Your task to perform on an android device: all mails in gmail Image 0: 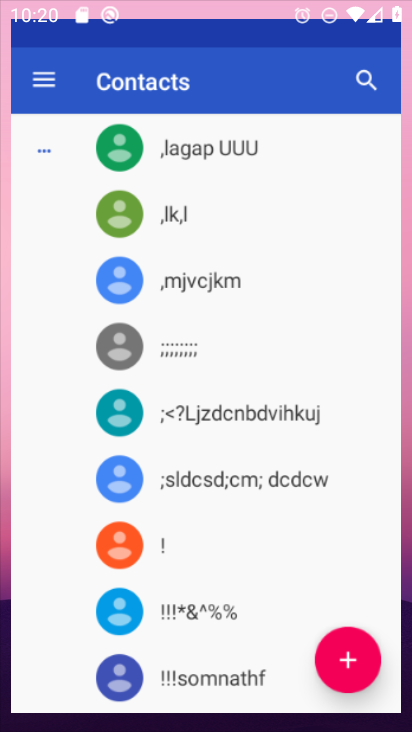
Step 0: press home button
Your task to perform on an android device: all mails in gmail Image 1: 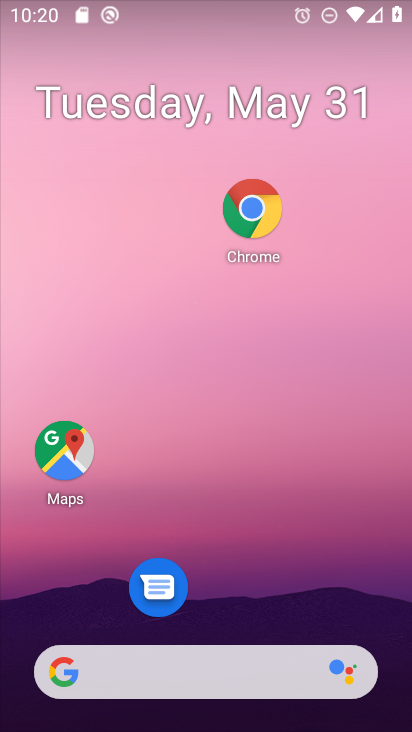
Step 1: drag from (206, 622) to (205, 88)
Your task to perform on an android device: all mails in gmail Image 2: 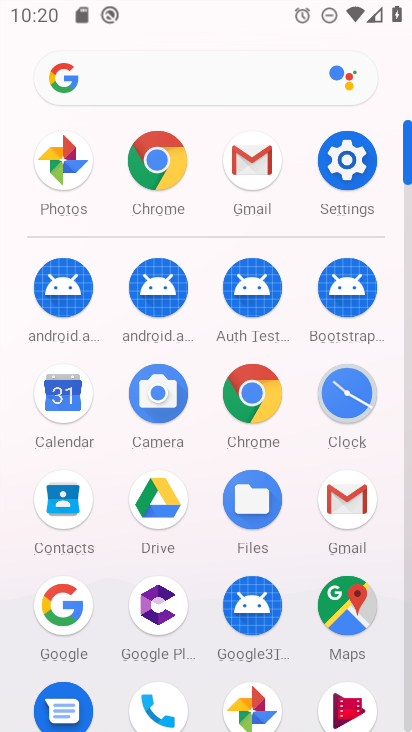
Step 2: click (247, 159)
Your task to perform on an android device: all mails in gmail Image 3: 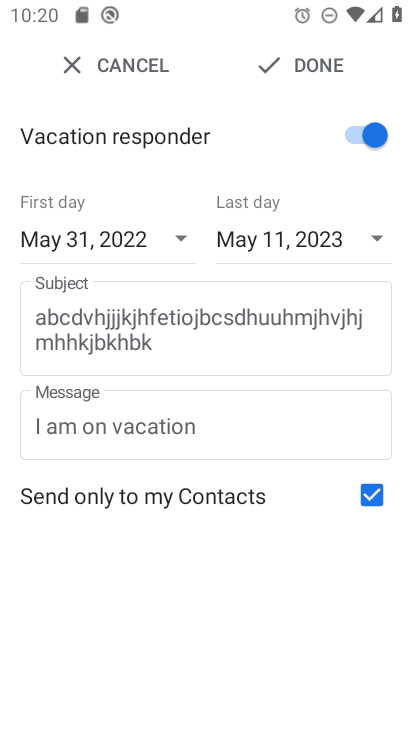
Step 3: click (263, 63)
Your task to perform on an android device: all mails in gmail Image 4: 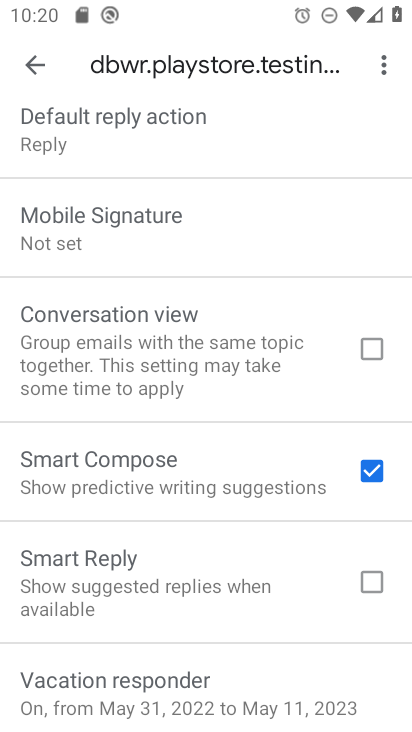
Step 4: click (34, 63)
Your task to perform on an android device: all mails in gmail Image 5: 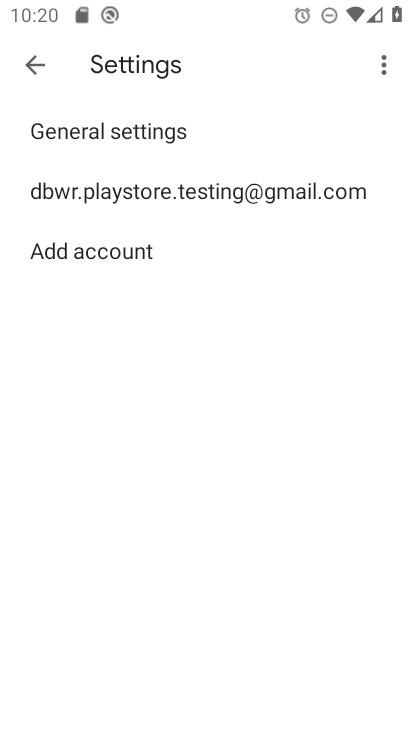
Step 5: click (32, 63)
Your task to perform on an android device: all mails in gmail Image 6: 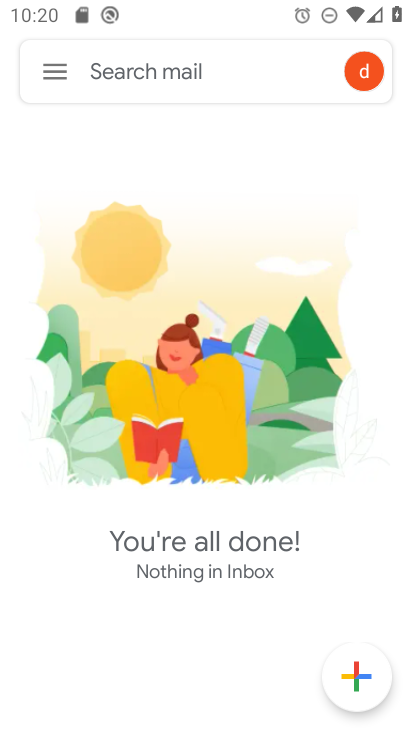
Step 6: click (47, 65)
Your task to perform on an android device: all mails in gmail Image 7: 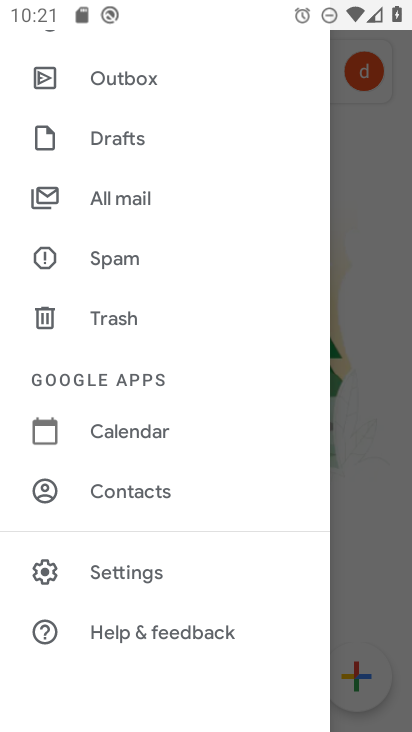
Step 7: click (80, 186)
Your task to perform on an android device: all mails in gmail Image 8: 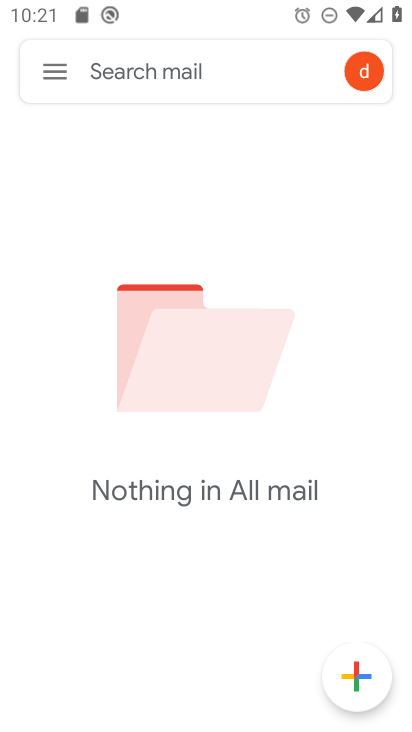
Step 8: task complete